Your task to perform on an android device: make emails show in primary in the gmail app Image 0: 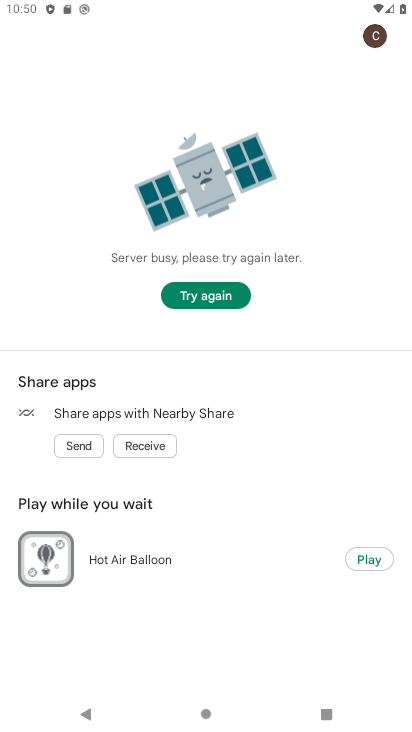
Step 0: press home button
Your task to perform on an android device: make emails show in primary in the gmail app Image 1: 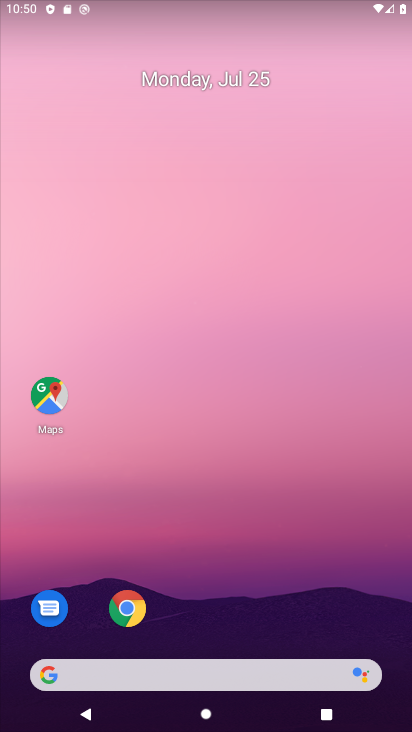
Step 1: drag from (312, 618) to (235, 11)
Your task to perform on an android device: make emails show in primary in the gmail app Image 2: 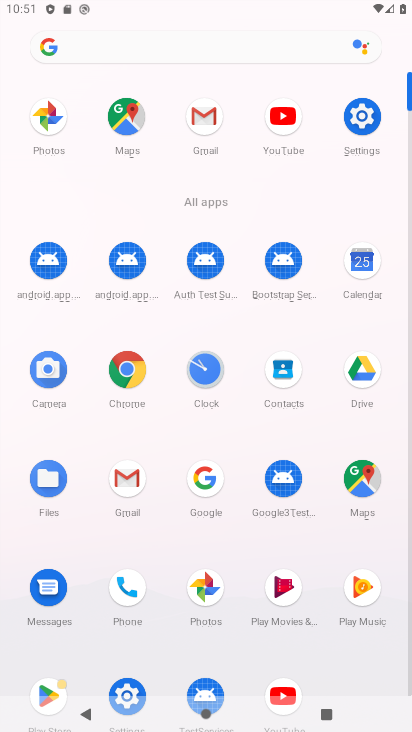
Step 2: click (200, 123)
Your task to perform on an android device: make emails show in primary in the gmail app Image 3: 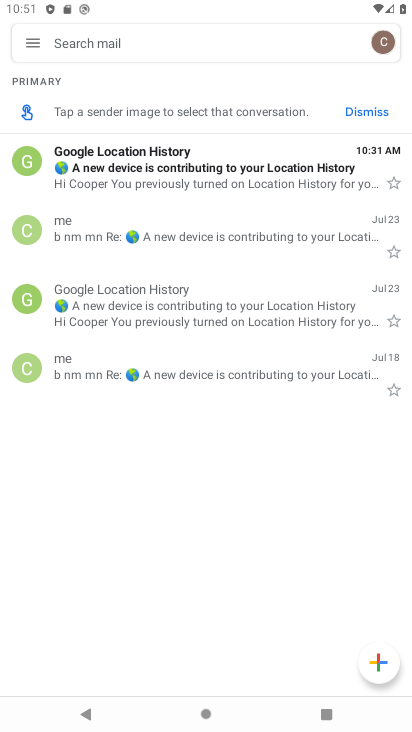
Step 3: click (25, 43)
Your task to perform on an android device: make emails show in primary in the gmail app Image 4: 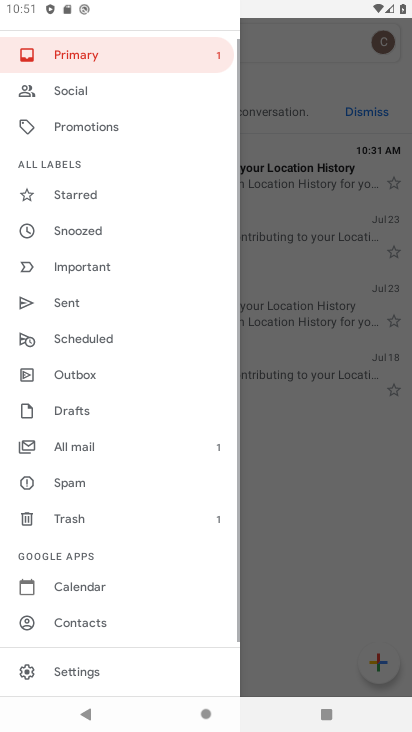
Step 4: drag from (104, 521) to (154, 4)
Your task to perform on an android device: make emails show in primary in the gmail app Image 5: 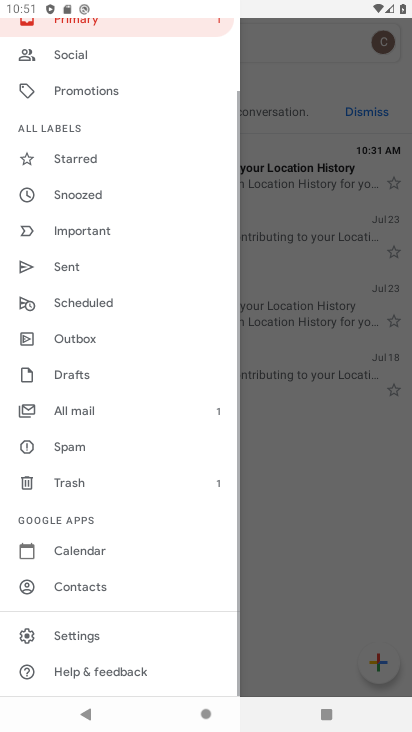
Step 5: click (74, 645)
Your task to perform on an android device: make emails show in primary in the gmail app Image 6: 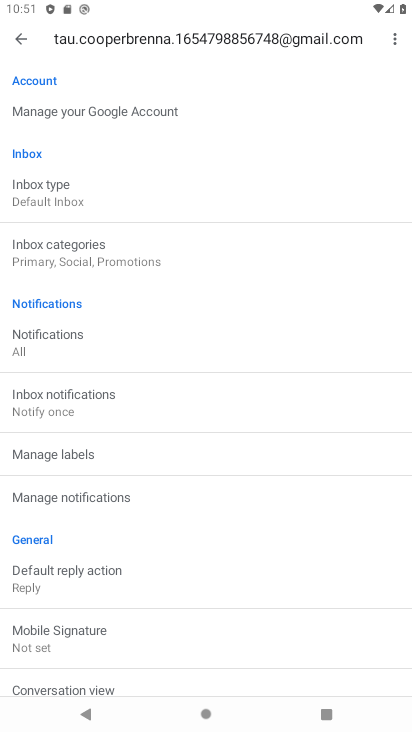
Step 6: click (58, 188)
Your task to perform on an android device: make emails show in primary in the gmail app Image 7: 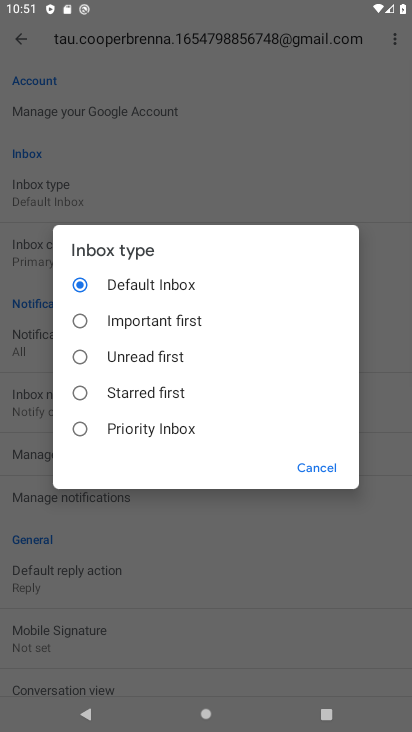
Step 7: click (128, 287)
Your task to perform on an android device: make emails show in primary in the gmail app Image 8: 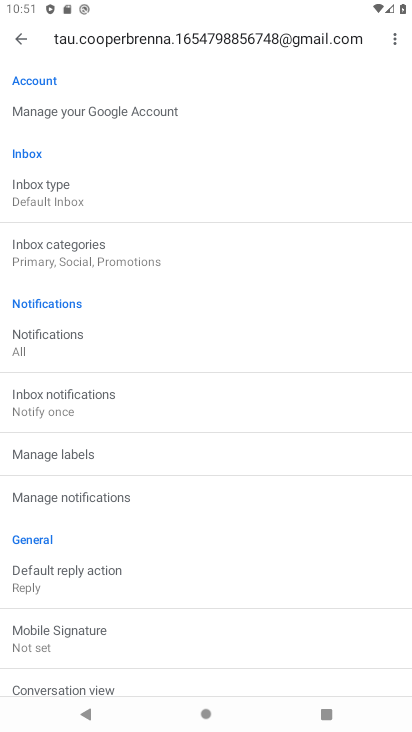
Step 8: task complete